Your task to perform on an android device: turn on the 12-hour format for clock Image 0: 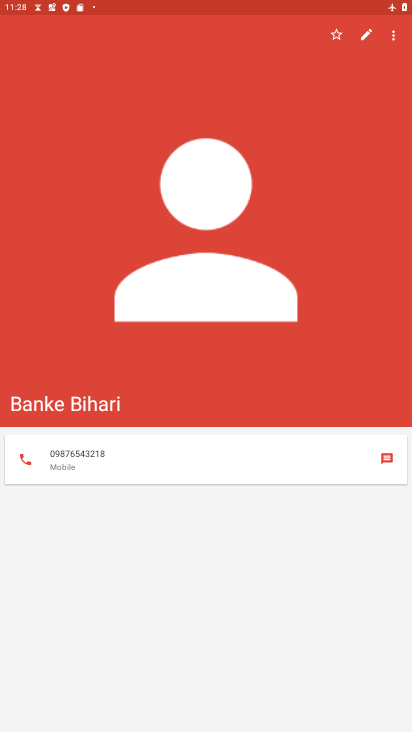
Step 0: press home button
Your task to perform on an android device: turn on the 12-hour format for clock Image 1: 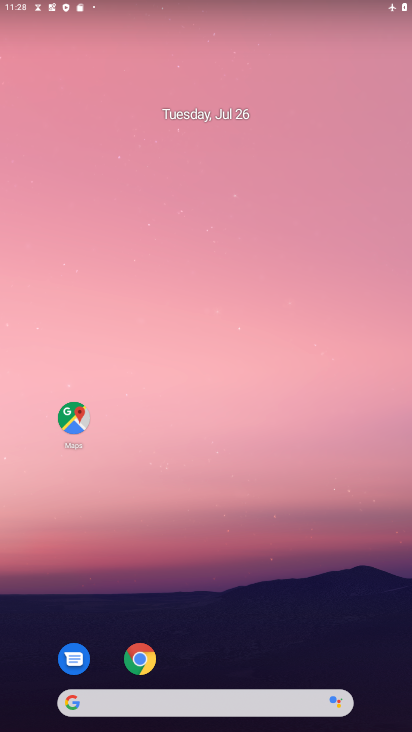
Step 1: drag from (160, 701) to (222, 70)
Your task to perform on an android device: turn on the 12-hour format for clock Image 2: 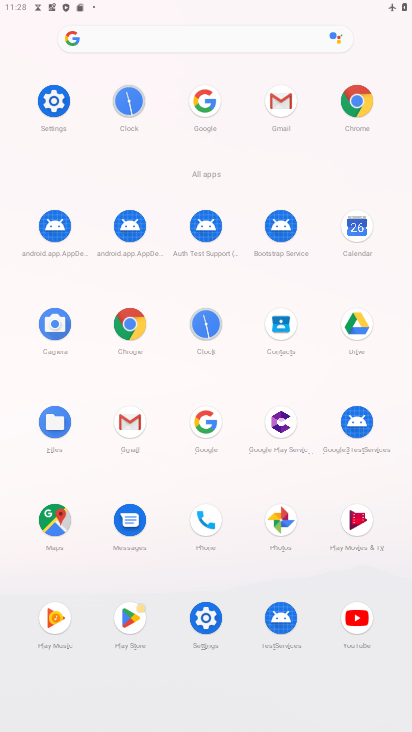
Step 2: click (205, 327)
Your task to perform on an android device: turn on the 12-hour format for clock Image 3: 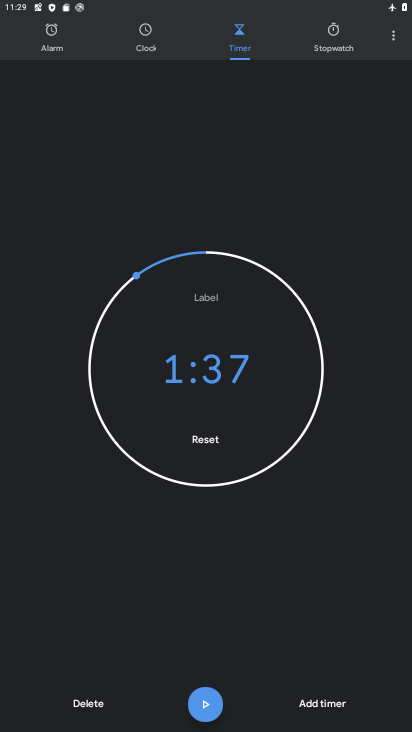
Step 3: click (391, 36)
Your task to perform on an android device: turn on the 12-hour format for clock Image 4: 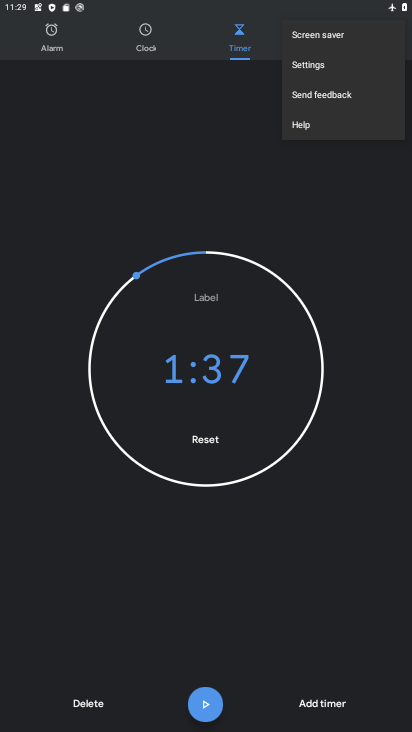
Step 4: click (320, 66)
Your task to perform on an android device: turn on the 12-hour format for clock Image 5: 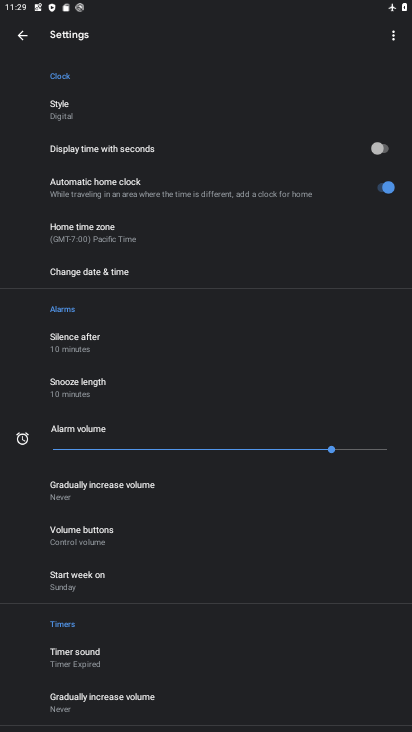
Step 5: click (92, 274)
Your task to perform on an android device: turn on the 12-hour format for clock Image 6: 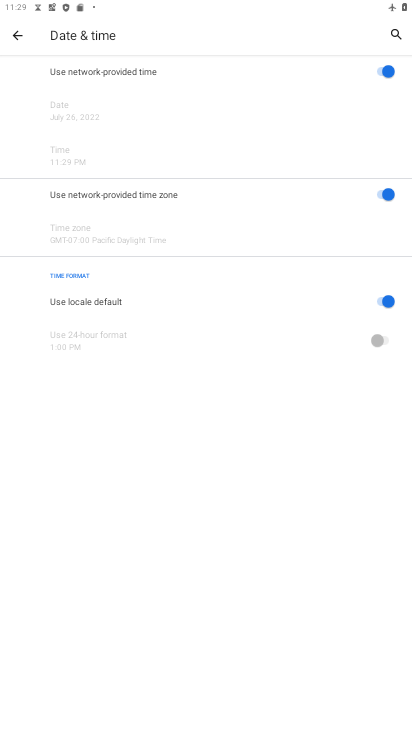
Step 6: task complete